Your task to perform on an android device: What's the weather going to be tomorrow? Image 0: 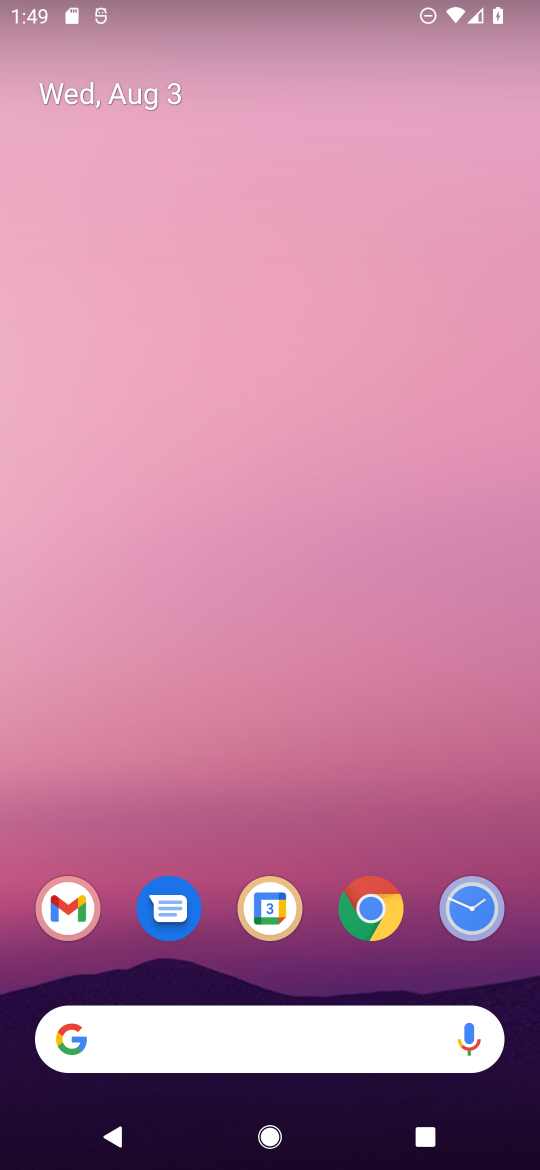
Step 0: drag from (288, 883) to (299, 130)
Your task to perform on an android device: What's the weather going to be tomorrow? Image 1: 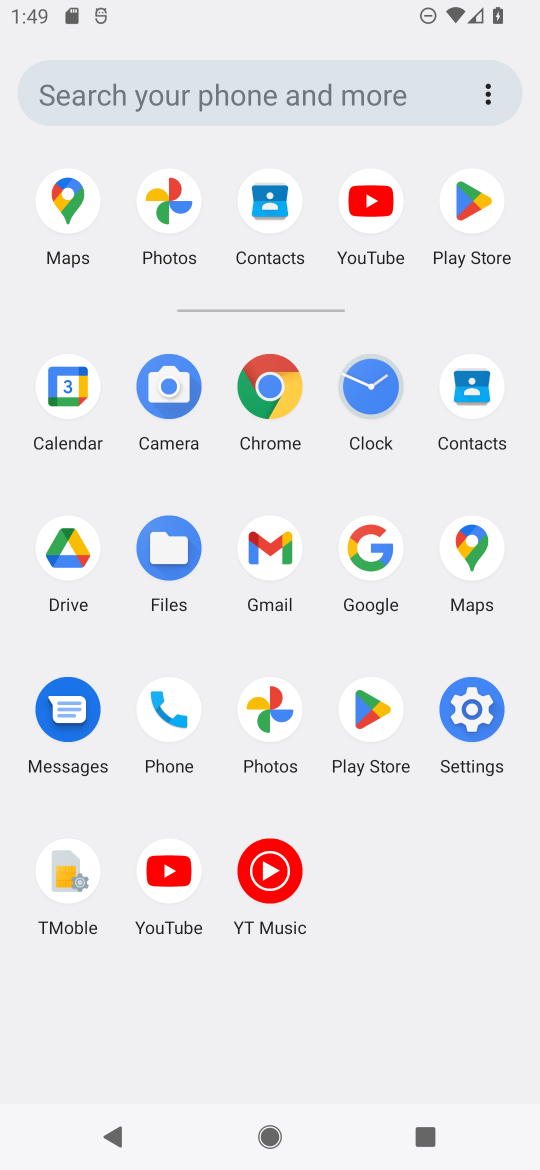
Step 1: click (370, 553)
Your task to perform on an android device: What's the weather going to be tomorrow? Image 2: 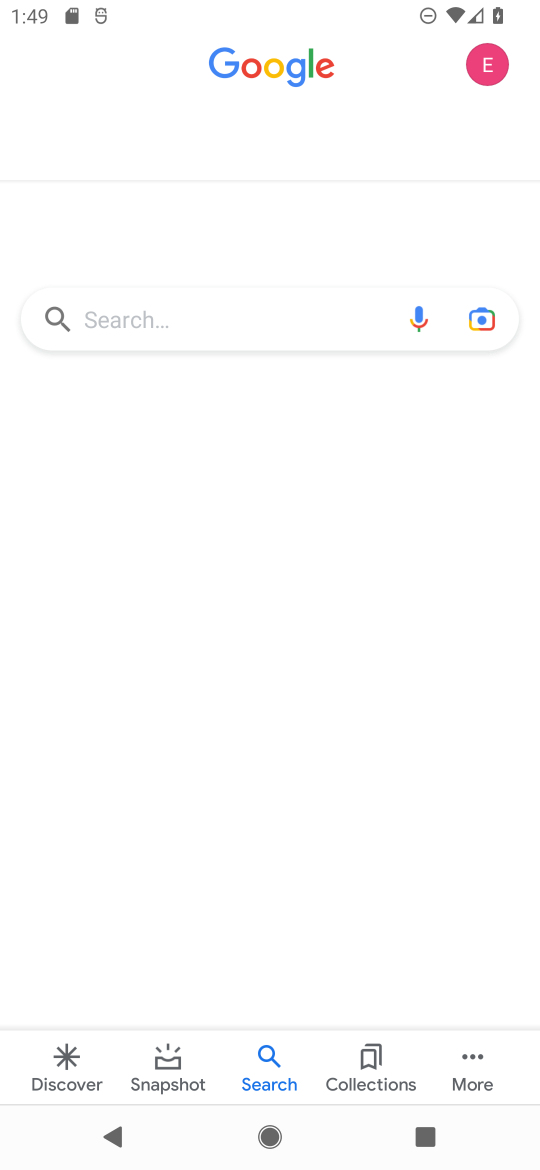
Step 2: click (128, 316)
Your task to perform on an android device: What's the weather going to be tomorrow? Image 3: 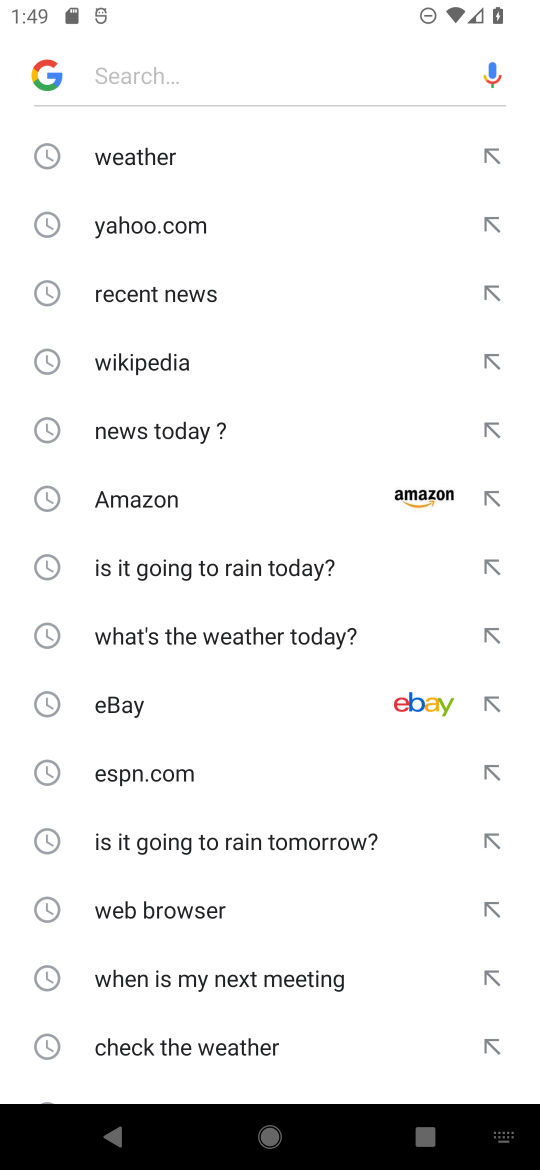
Step 3: click (137, 145)
Your task to perform on an android device: What's the weather going to be tomorrow? Image 4: 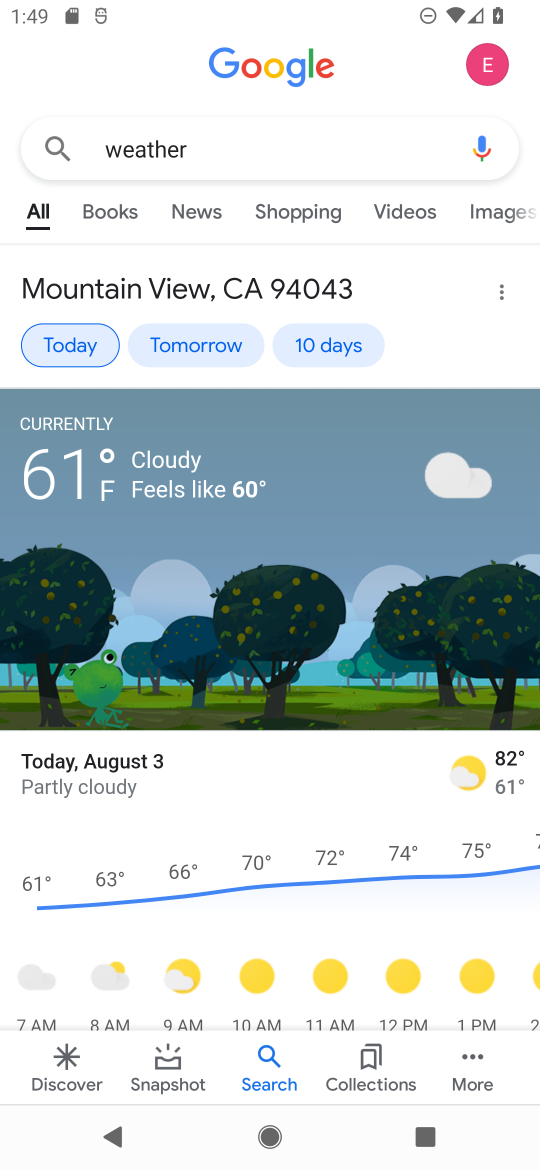
Step 4: click (213, 342)
Your task to perform on an android device: What's the weather going to be tomorrow? Image 5: 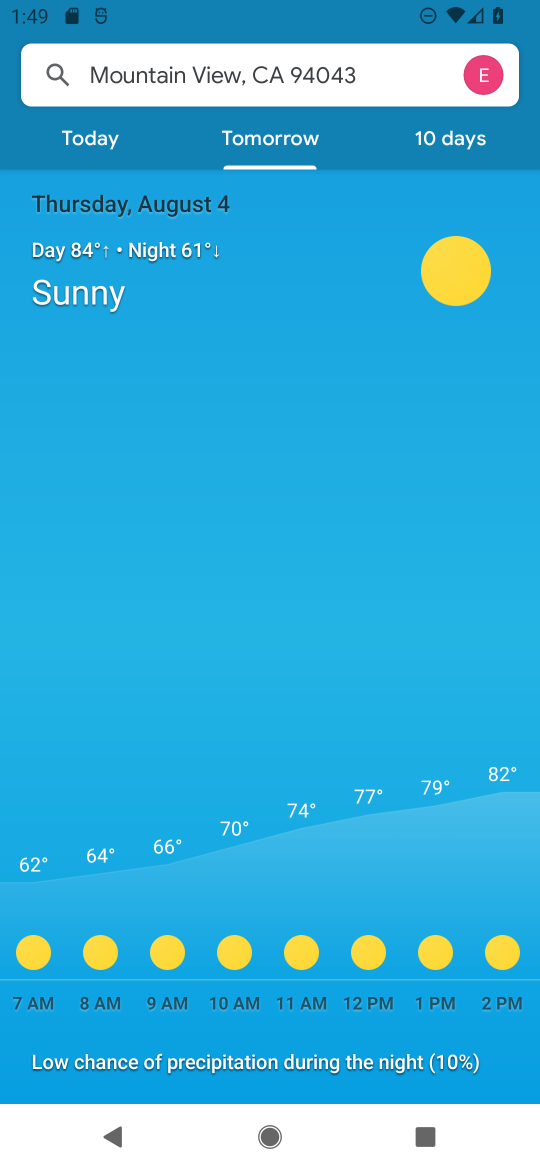
Step 5: task complete